Your task to perform on an android device: toggle location history Image 0: 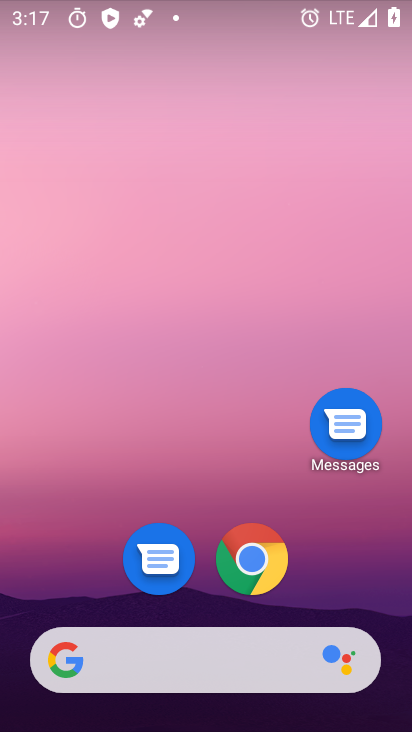
Step 0: drag from (51, 542) to (88, 67)
Your task to perform on an android device: toggle location history Image 1: 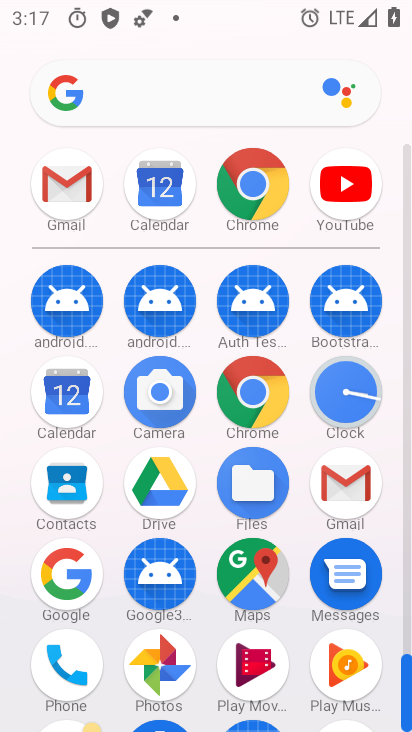
Step 1: drag from (13, 529) to (20, 289)
Your task to perform on an android device: toggle location history Image 2: 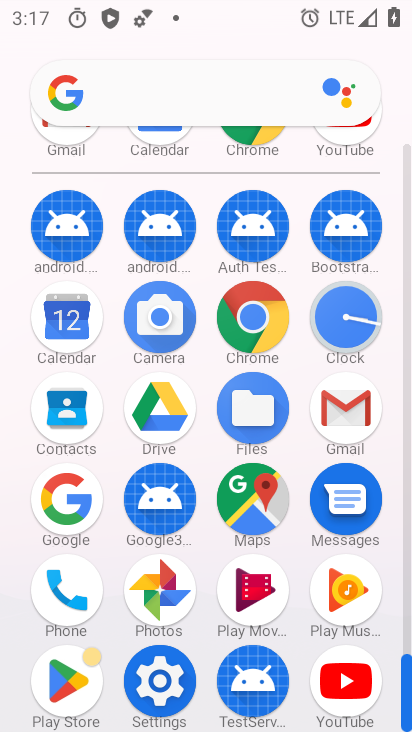
Step 2: click (167, 674)
Your task to perform on an android device: toggle location history Image 3: 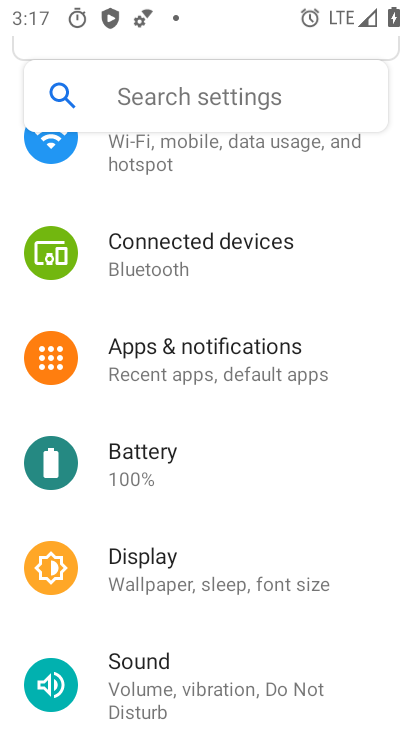
Step 3: drag from (356, 360) to (356, 444)
Your task to perform on an android device: toggle location history Image 4: 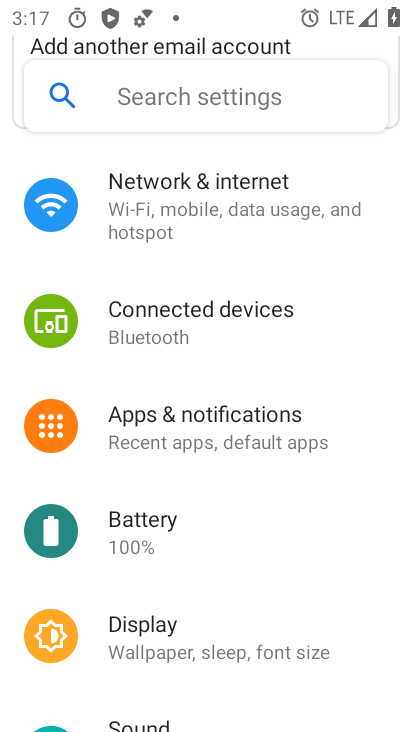
Step 4: drag from (357, 328) to (355, 409)
Your task to perform on an android device: toggle location history Image 5: 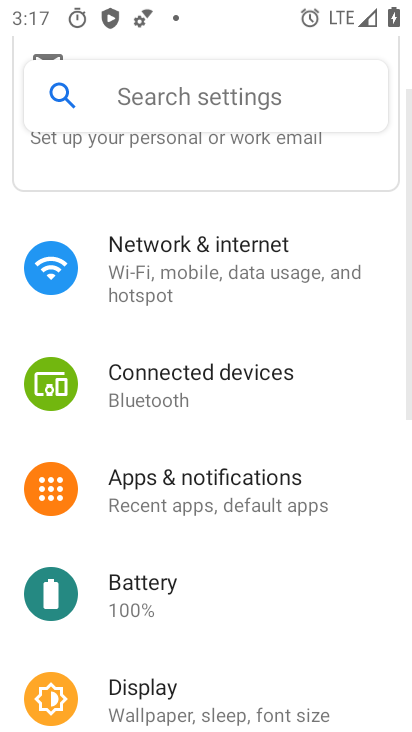
Step 5: drag from (365, 347) to (347, 586)
Your task to perform on an android device: toggle location history Image 6: 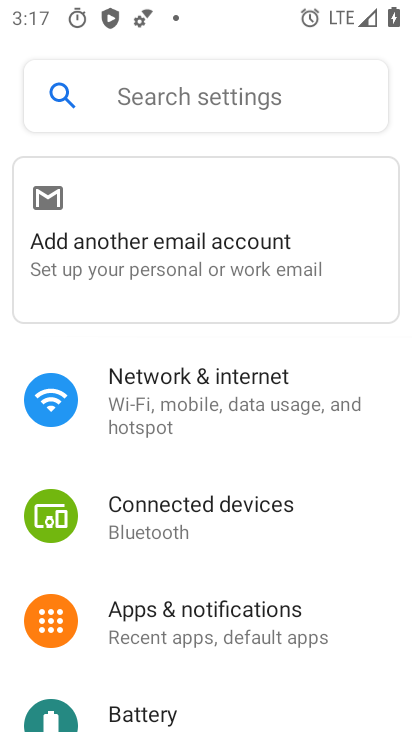
Step 6: drag from (345, 606) to (364, 500)
Your task to perform on an android device: toggle location history Image 7: 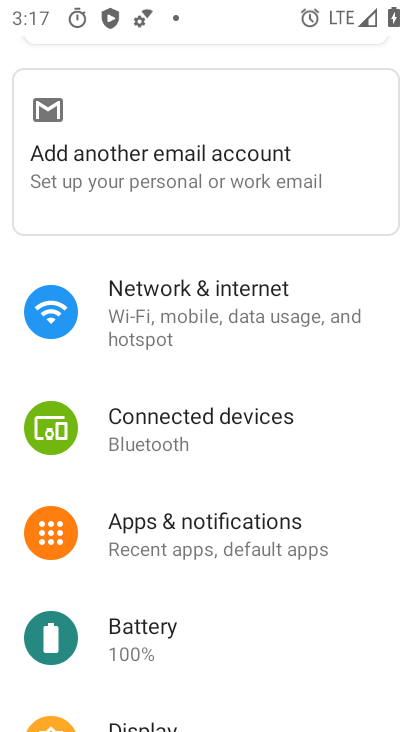
Step 7: drag from (354, 595) to (365, 507)
Your task to perform on an android device: toggle location history Image 8: 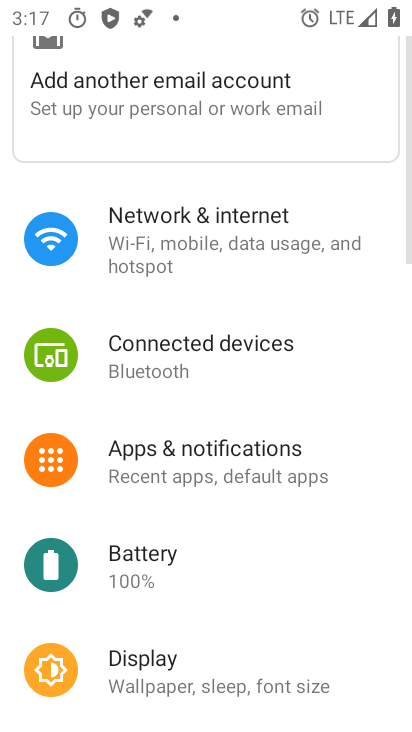
Step 8: drag from (349, 598) to (354, 504)
Your task to perform on an android device: toggle location history Image 9: 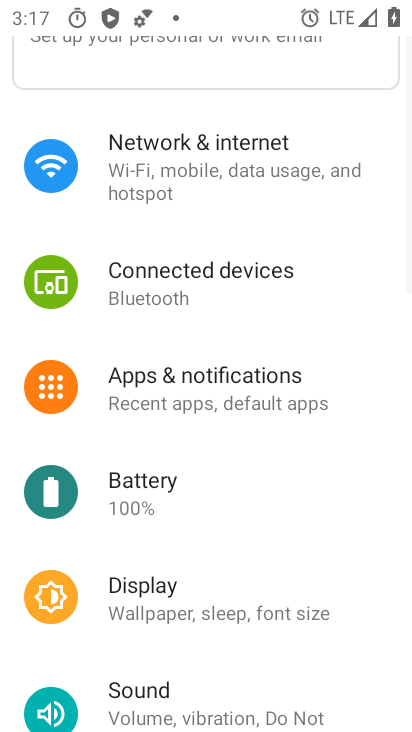
Step 9: drag from (365, 623) to (368, 519)
Your task to perform on an android device: toggle location history Image 10: 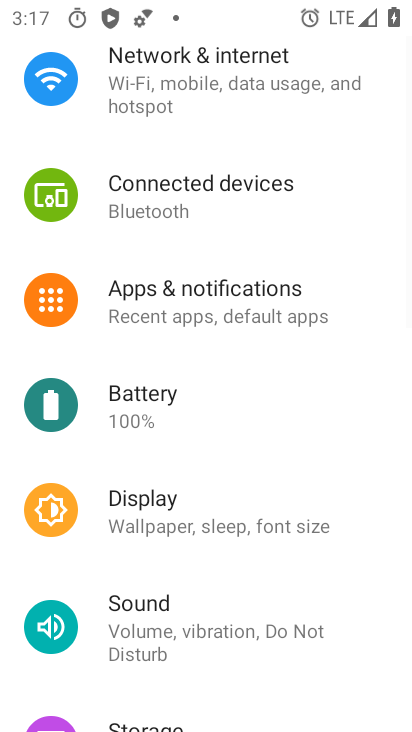
Step 10: drag from (357, 619) to (359, 539)
Your task to perform on an android device: toggle location history Image 11: 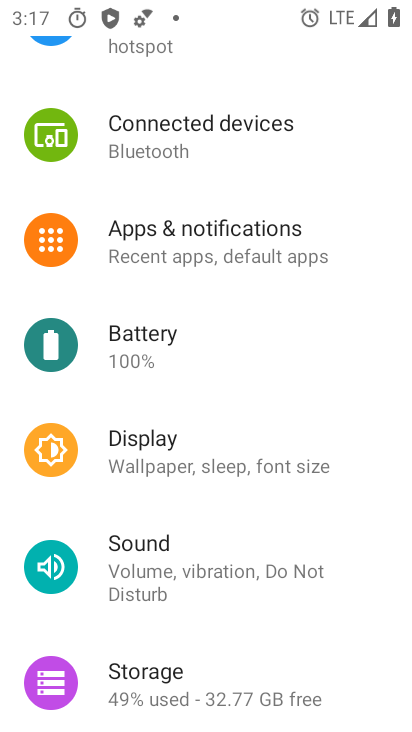
Step 11: drag from (366, 641) to (373, 520)
Your task to perform on an android device: toggle location history Image 12: 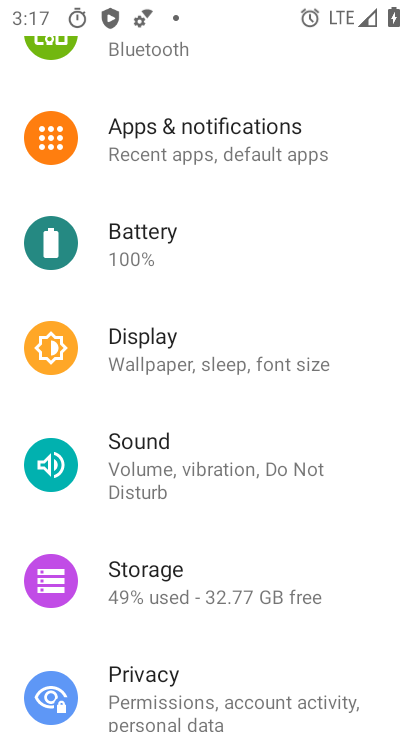
Step 12: drag from (369, 615) to (368, 513)
Your task to perform on an android device: toggle location history Image 13: 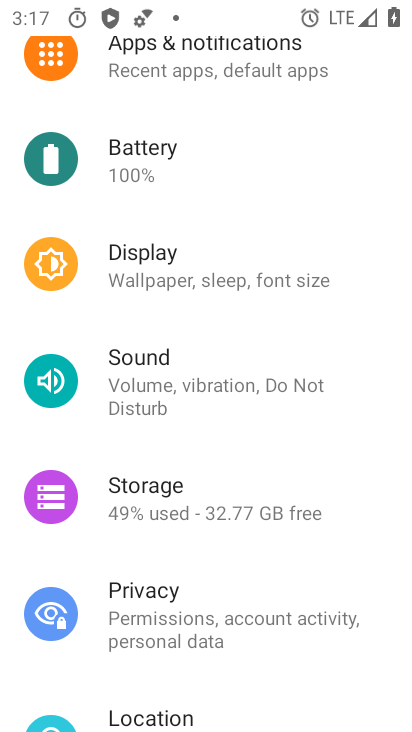
Step 13: drag from (367, 643) to (366, 530)
Your task to perform on an android device: toggle location history Image 14: 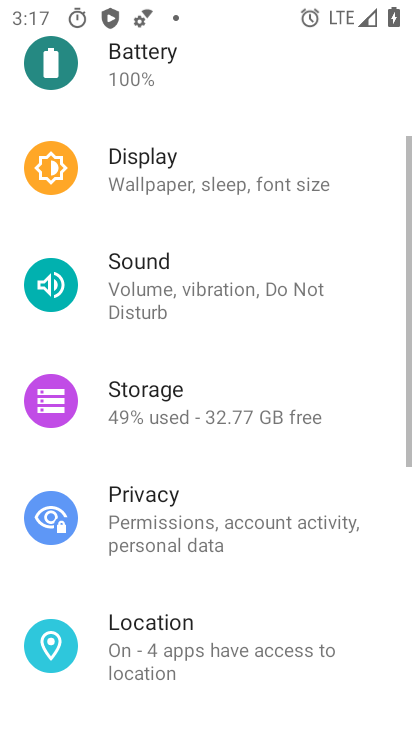
Step 14: drag from (369, 624) to (369, 497)
Your task to perform on an android device: toggle location history Image 15: 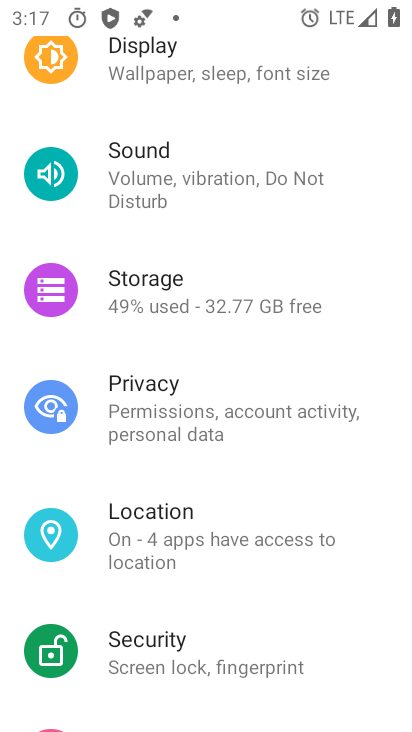
Step 15: drag from (375, 628) to (372, 468)
Your task to perform on an android device: toggle location history Image 16: 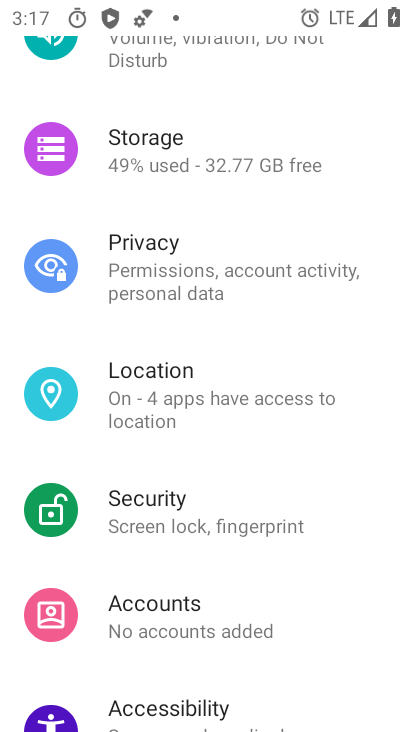
Step 16: click (307, 395)
Your task to perform on an android device: toggle location history Image 17: 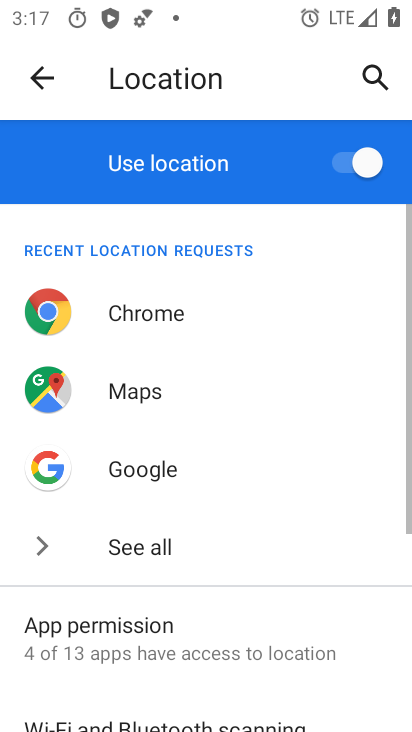
Step 17: drag from (349, 614) to (349, 492)
Your task to perform on an android device: toggle location history Image 18: 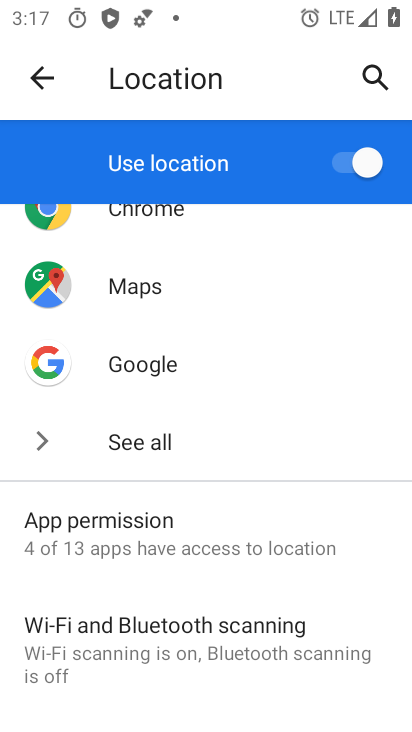
Step 18: drag from (349, 598) to (342, 483)
Your task to perform on an android device: toggle location history Image 19: 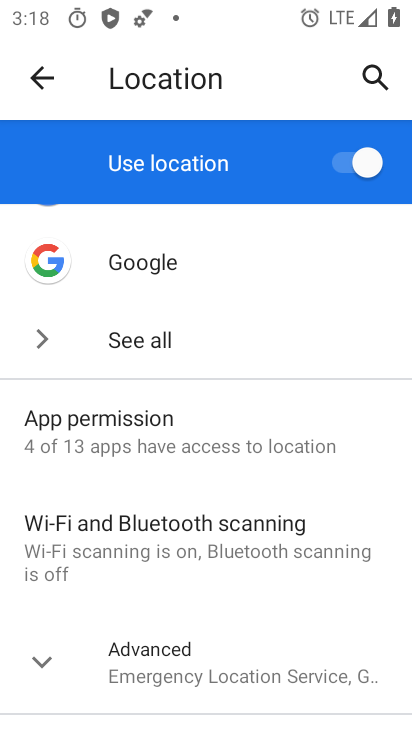
Step 19: click (317, 644)
Your task to perform on an android device: toggle location history Image 20: 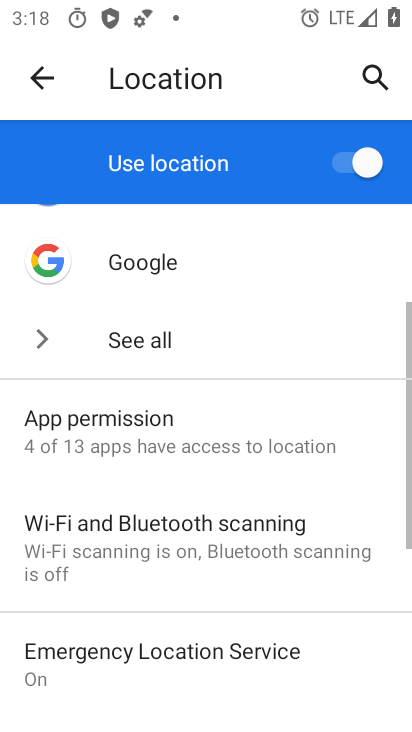
Step 20: drag from (317, 644) to (316, 520)
Your task to perform on an android device: toggle location history Image 21: 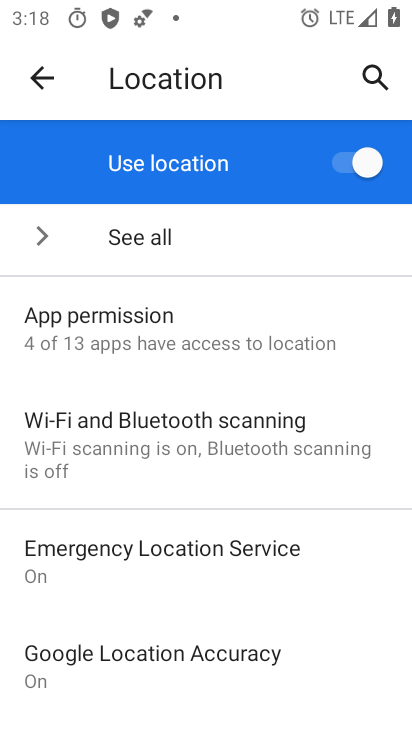
Step 21: drag from (326, 655) to (320, 543)
Your task to perform on an android device: toggle location history Image 22: 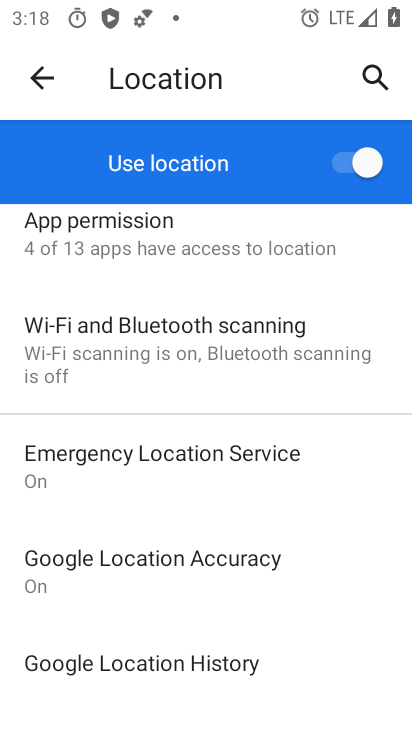
Step 22: drag from (320, 663) to (326, 556)
Your task to perform on an android device: toggle location history Image 23: 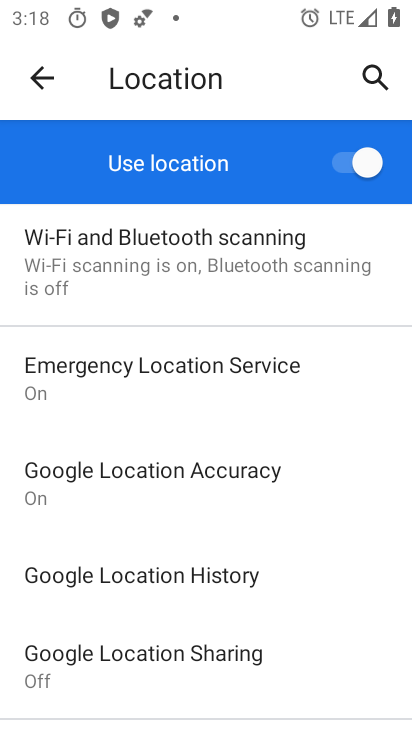
Step 23: click (240, 580)
Your task to perform on an android device: toggle location history Image 24: 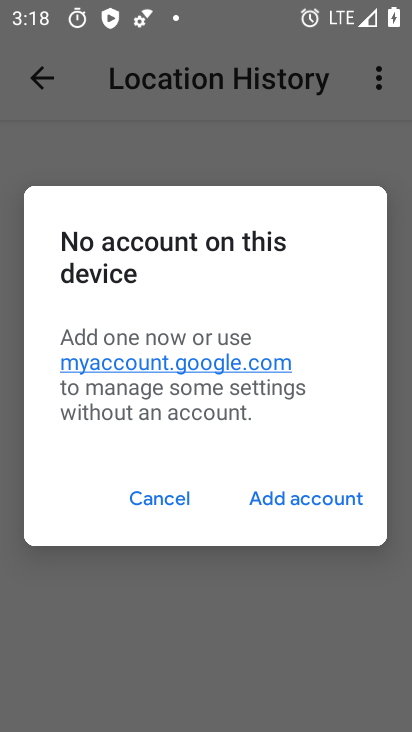
Step 24: click (157, 500)
Your task to perform on an android device: toggle location history Image 25: 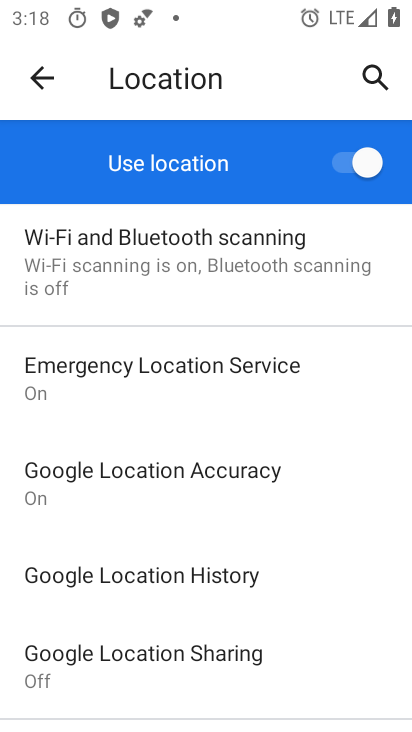
Step 25: task complete